Your task to perform on an android device: Open the calculator app Image 0: 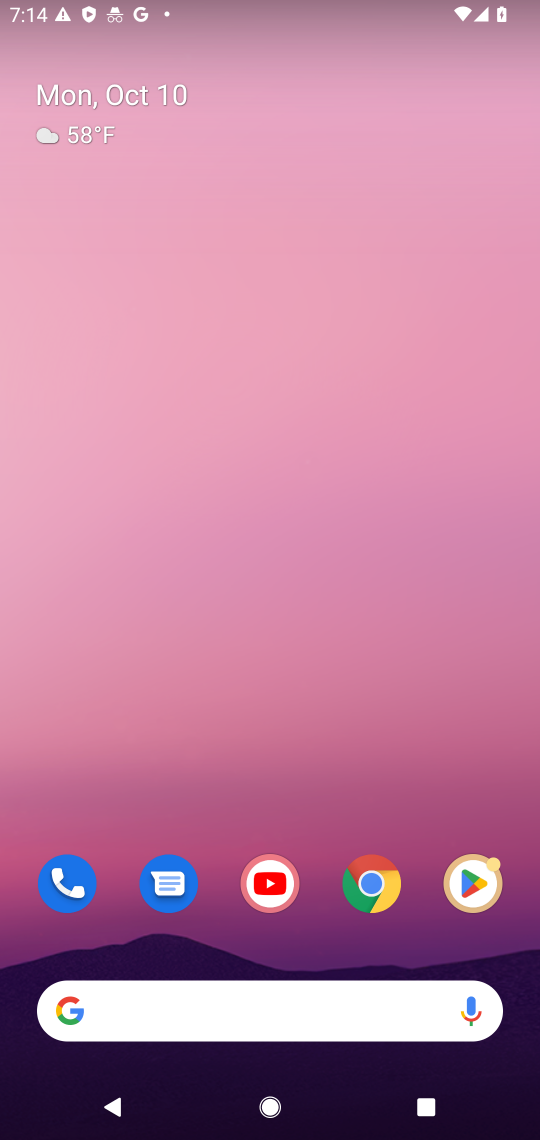
Step 0: drag from (300, 1001) to (373, 738)
Your task to perform on an android device: Open the calculator app Image 1: 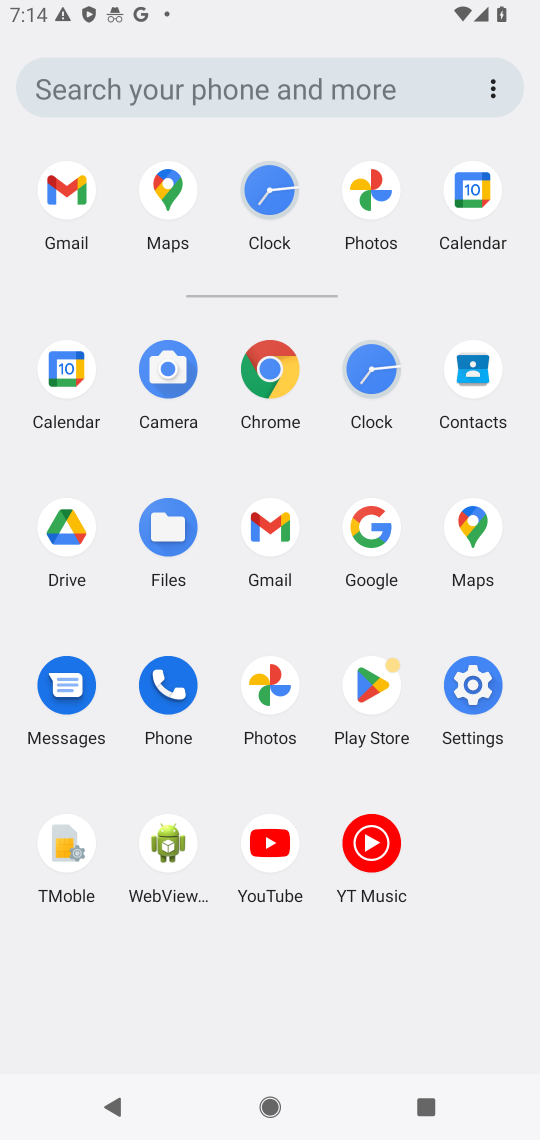
Step 1: click (276, 90)
Your task to perform on an android device: Open the calculator app Image 2: 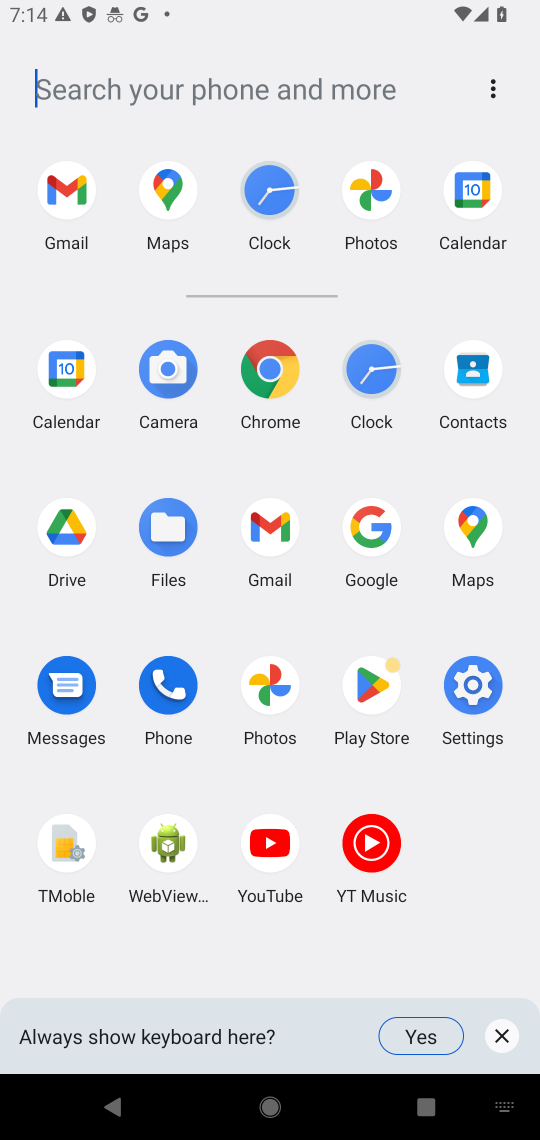
Step 2: type "calculator aap"
Your task to perform on an android device: Open the calculator app Image 3: 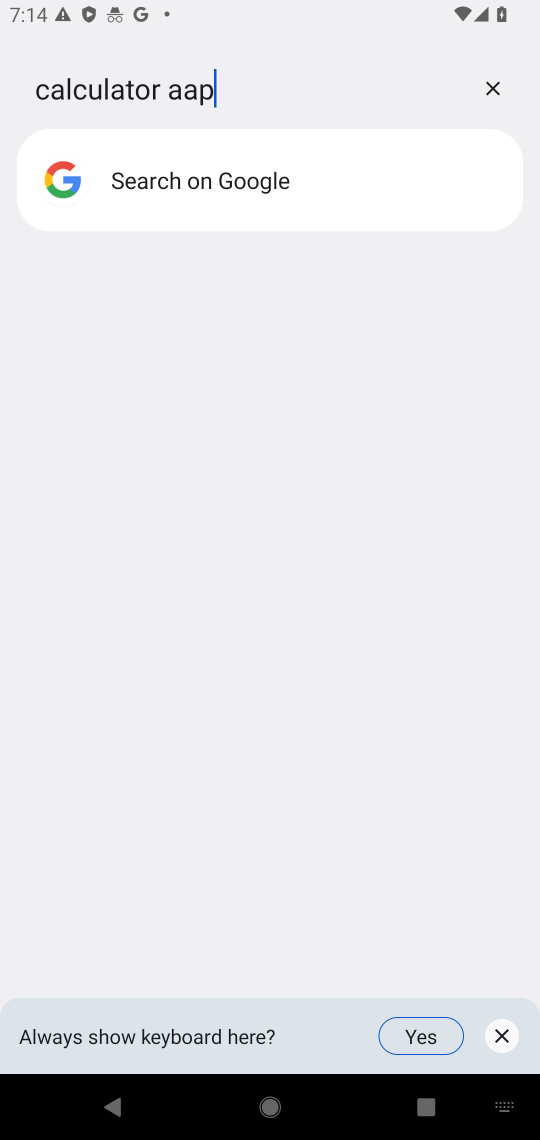
Step 3: task complete